Your task to perform on an android device: Is it going to rain this weekend? Image 0: 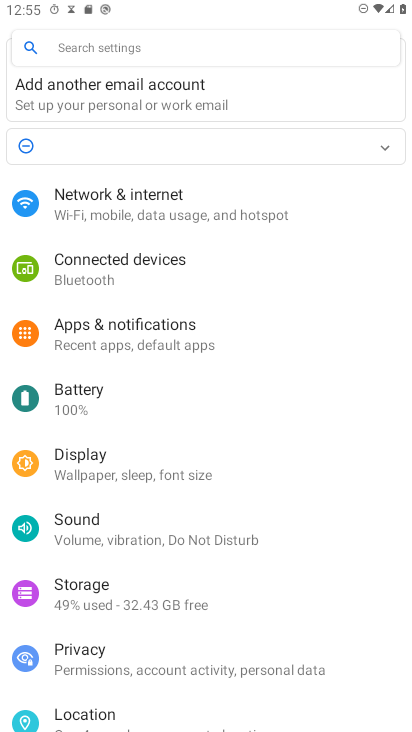
Step 0: press home button
Your task to perform on an android device: Is it going to rain this weekend? Image 1: 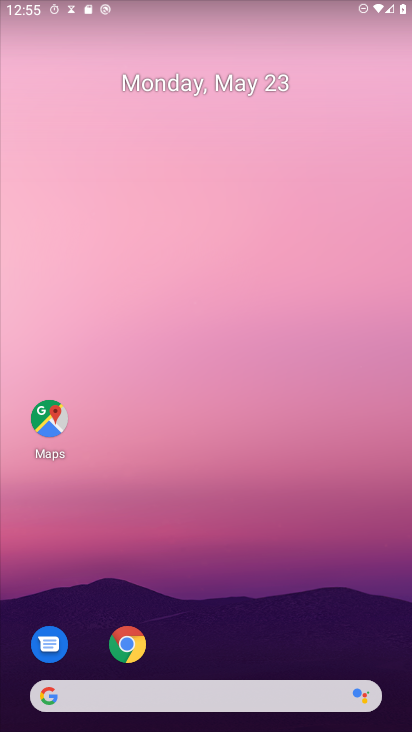
Step 1: click (191, 698)
Your task to perform on an android device: Is it going to rain this weekend? Image 2: 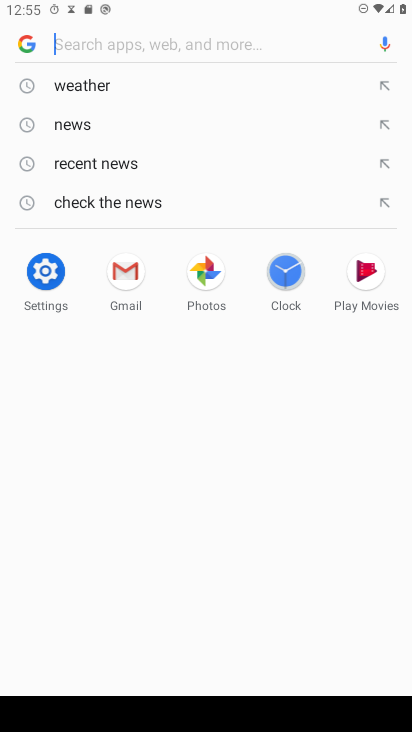
Step 2: click (110, 84)
Your task to perform on an android device: Is it going to rain this weekend? Image 3: 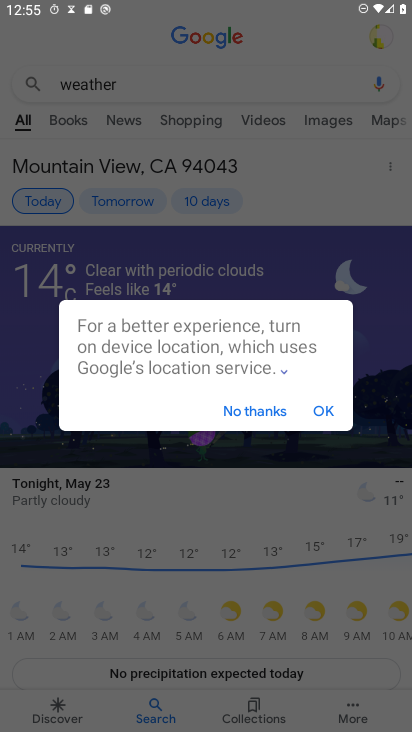
Step 3: click (324, 410)
Your task to perform on an android device: Is it going to rain this weekend? Image 4: 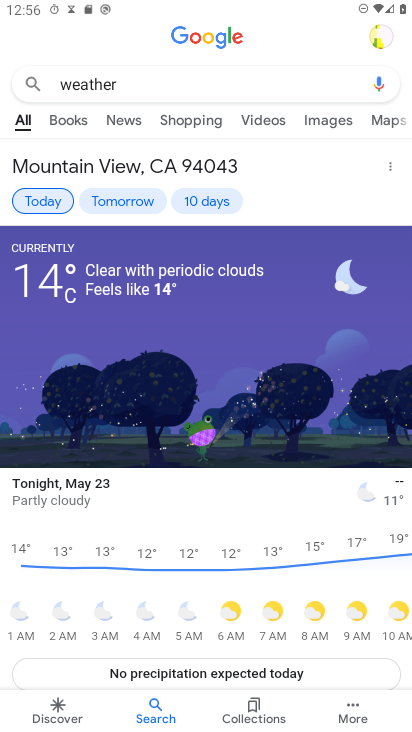
Step 4: drag from (243, 515) to (258, 343)
Your task to perform on an android device: Is it going to rain this weekend? Image 5: 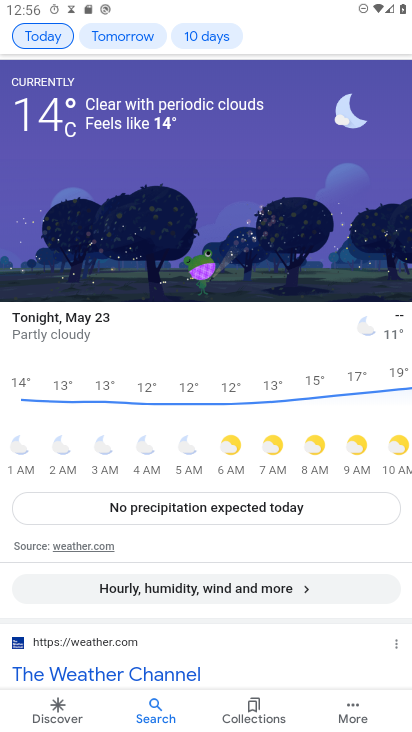
Step 5: click (199, 31)
Your task to perform on an android device: Is it going to rain this weekend? Image 6: 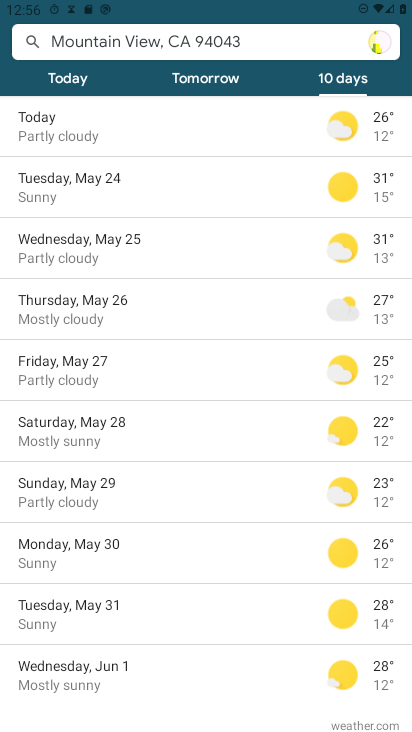
Step 6: task complete